Your task to perform on an android device: Add usb-c to the cart on bestbuy Image 0: 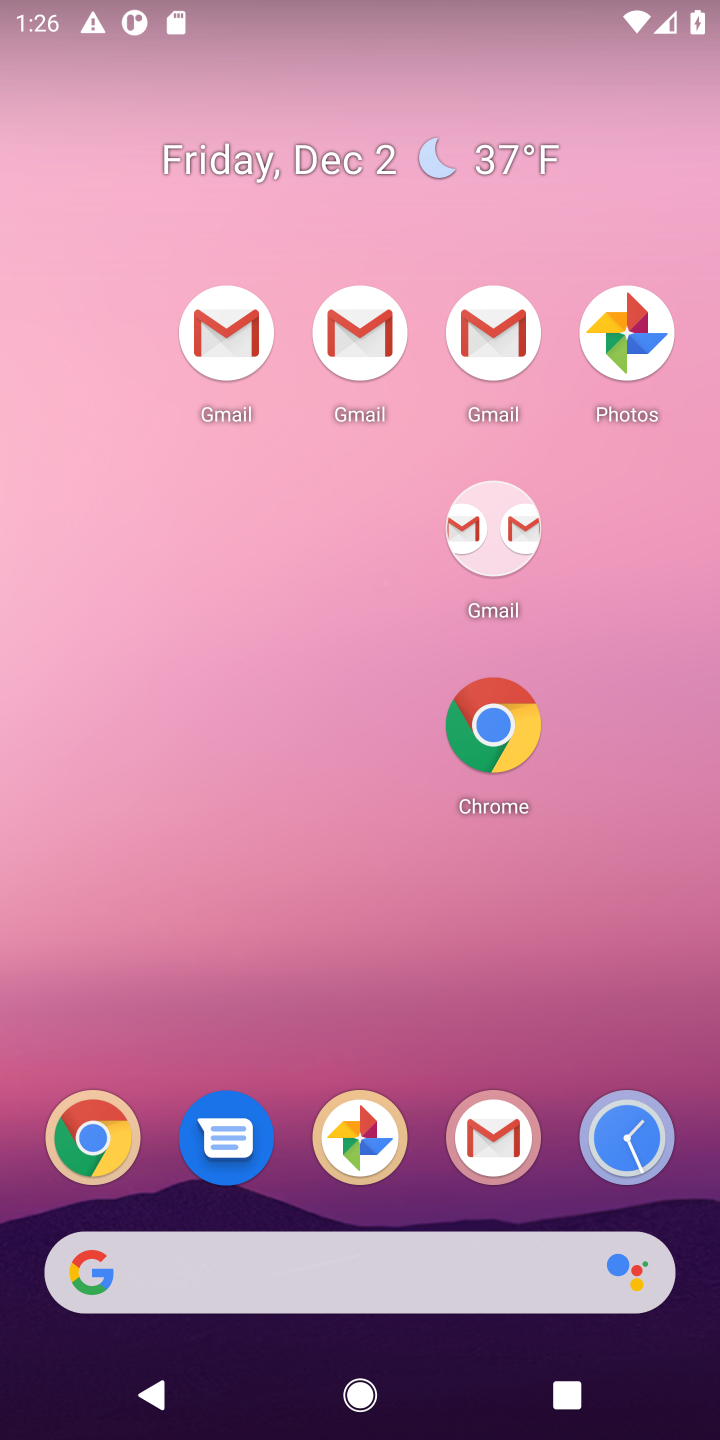
Step 0: drag from (440, 1226) to (343, 393)
Your task to perform on an android device: Add usb-c to the cart on bestbuy Image 1: 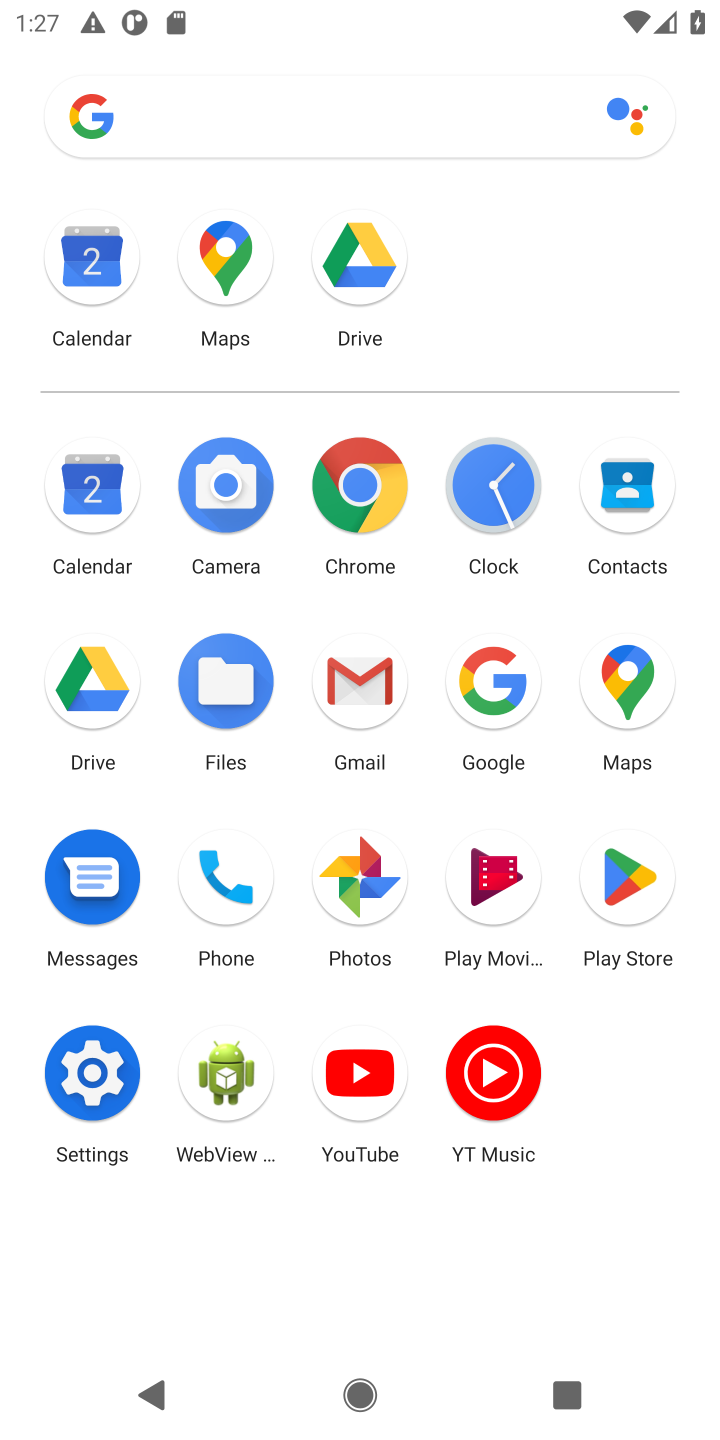
Step 1: click (547, 716)
Your task to perform on an android device: Add usb-c to the cart on bestbuy Image 2: 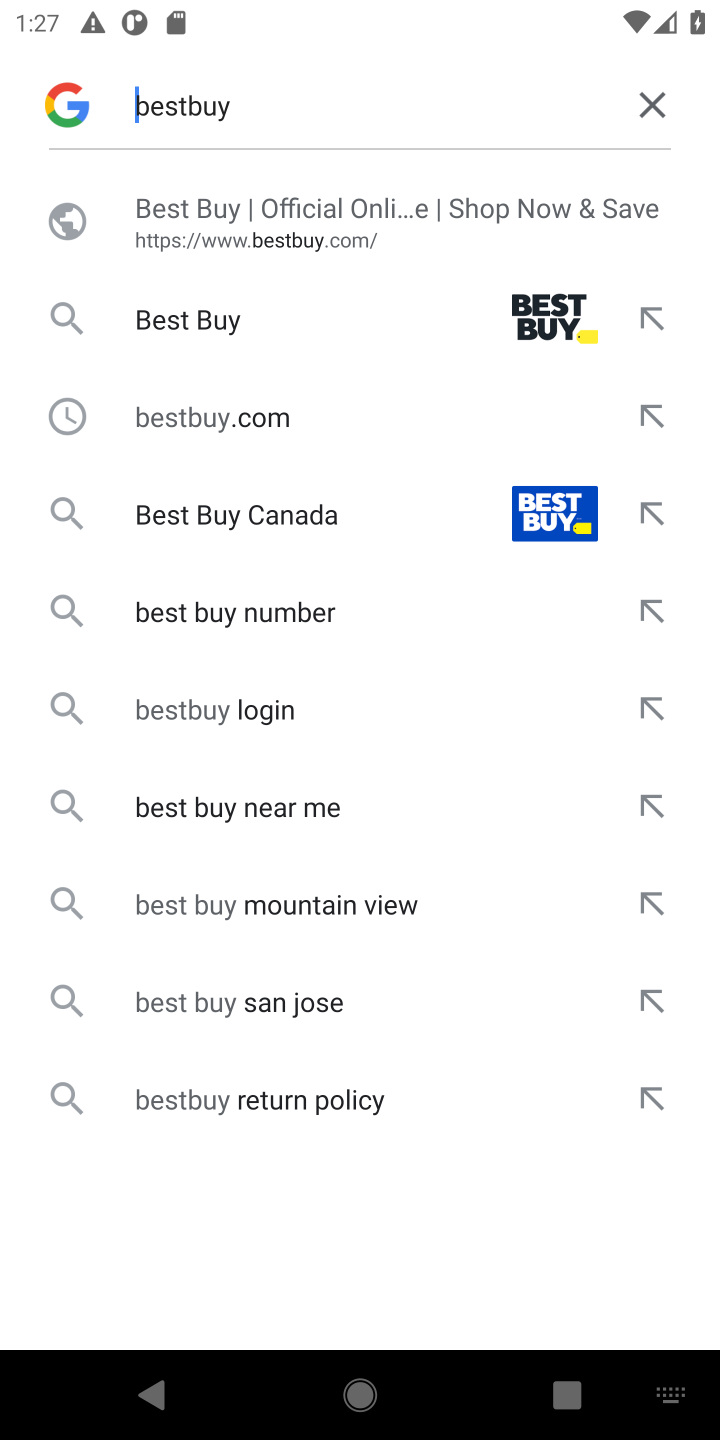
Step 2: click (412, 231)
Your task to perform on an android device: Add usb-c to the cart on bestbuy Image 3: 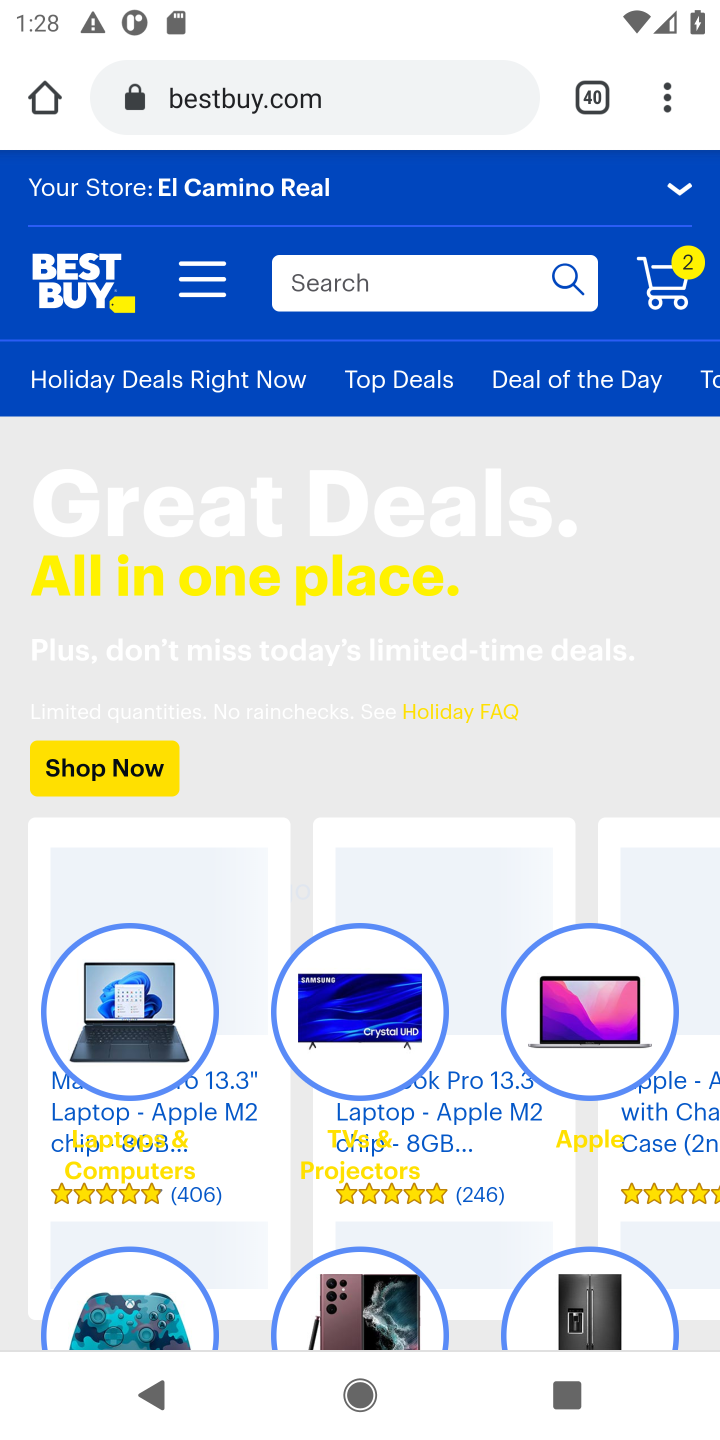
Step 3: click (467, 294)
Your task to perform on an android device: Add usb-c to the cart on bestbuy Image 4: 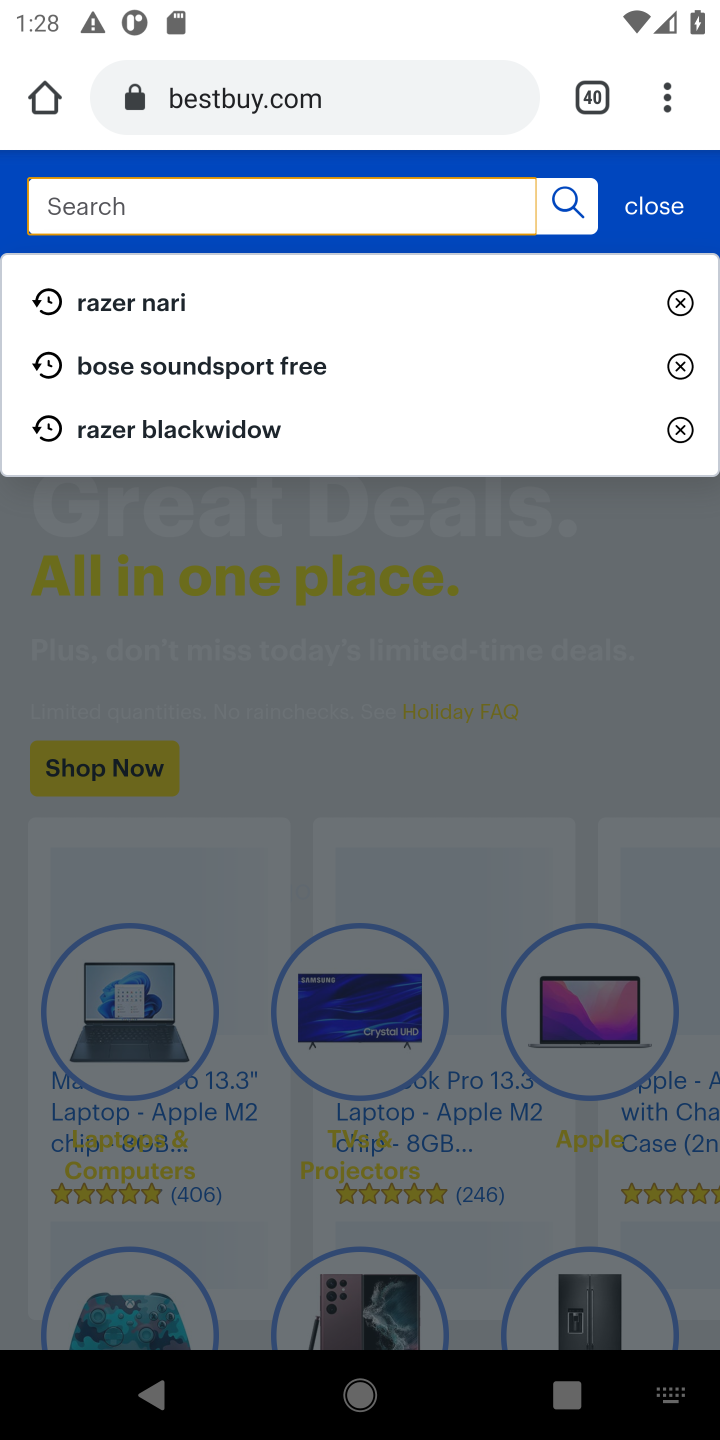
Step 4: type "usb-c"
Your task to perform on an android device: Add usb-c to the cart on bestbuy Image 5: 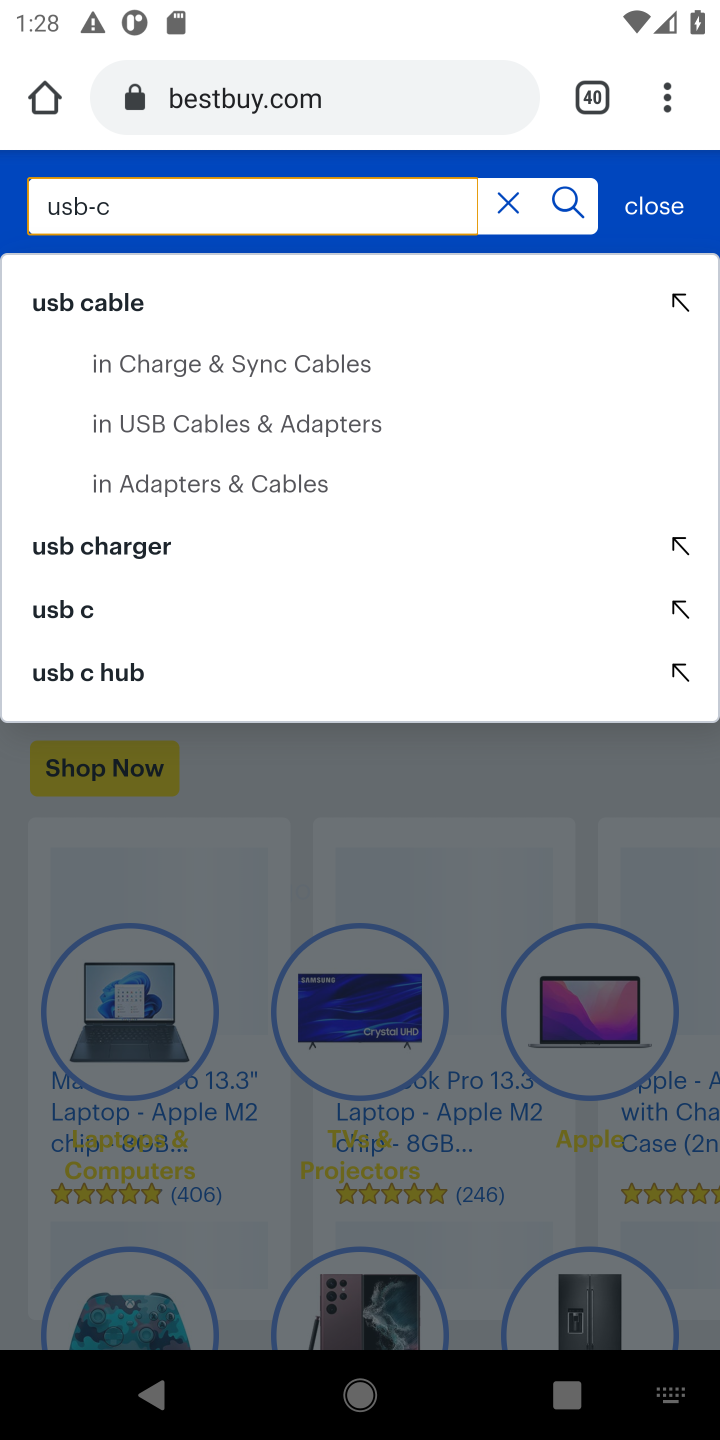
Step 5: click (155, 612)
Your task to perform on an android device: Add usb-c to the cart on bestbuy Image 6: 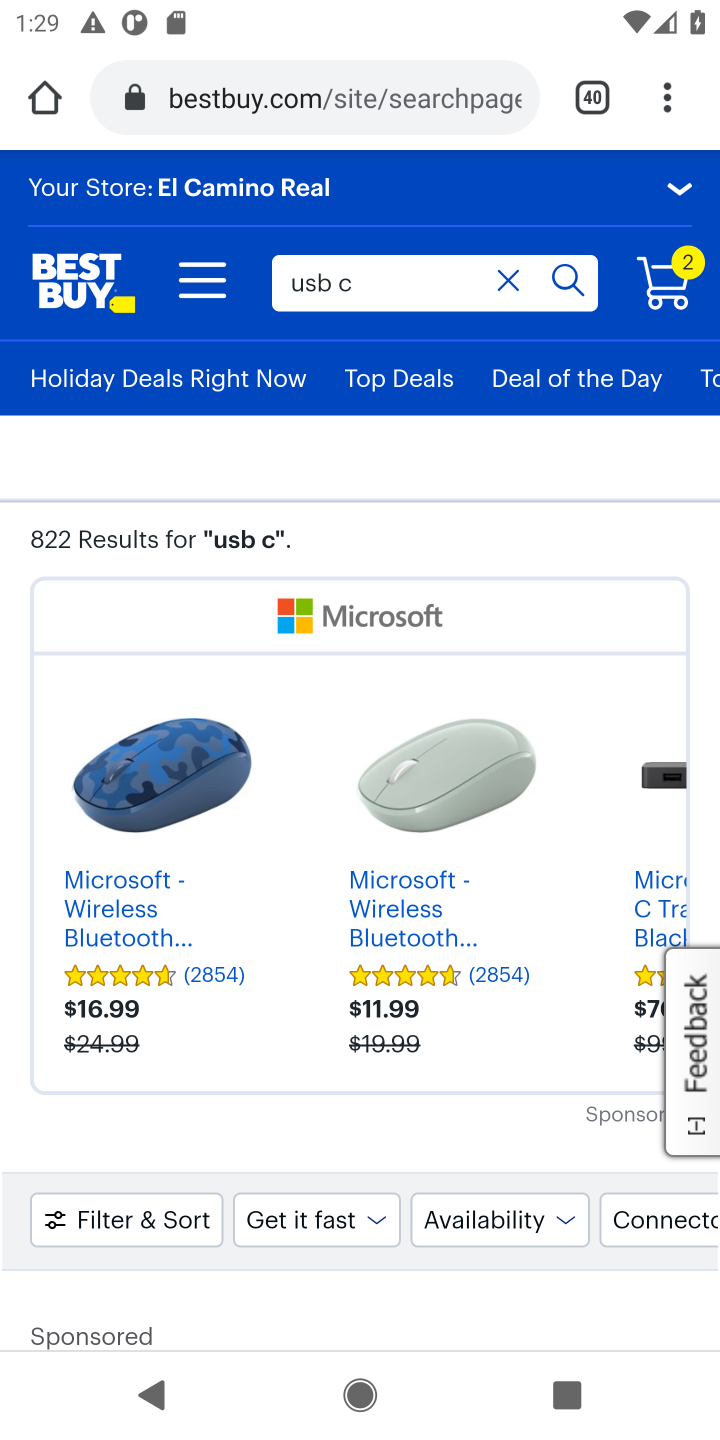
Step 6: drag from (390, 1098) to (394, 765)
Your task to perform on an android device: Add usb-c to the cart on bestbuy Image 7: 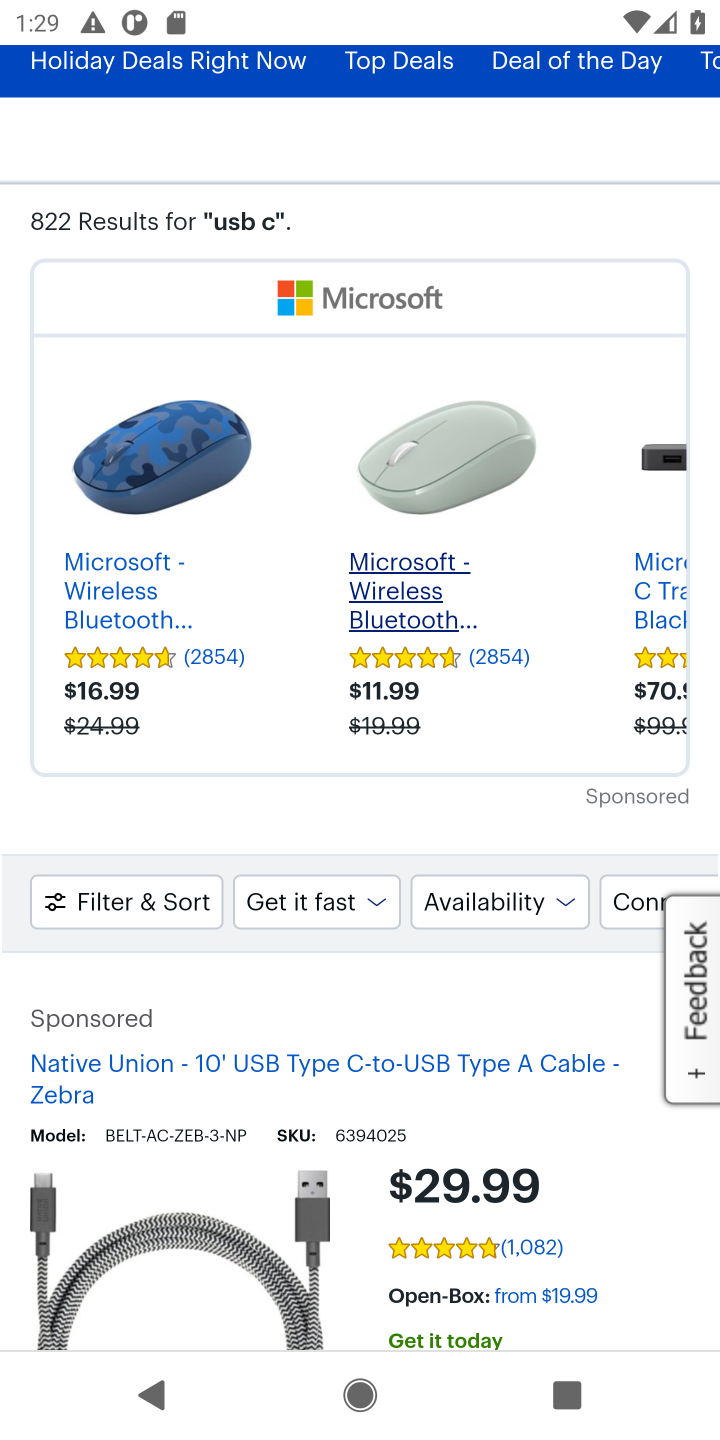
Step 7: drag from (400, 1112) to (405, 617)
Your task to perform on an android device: Add usb-c to the cart on bestbuy Image 8: 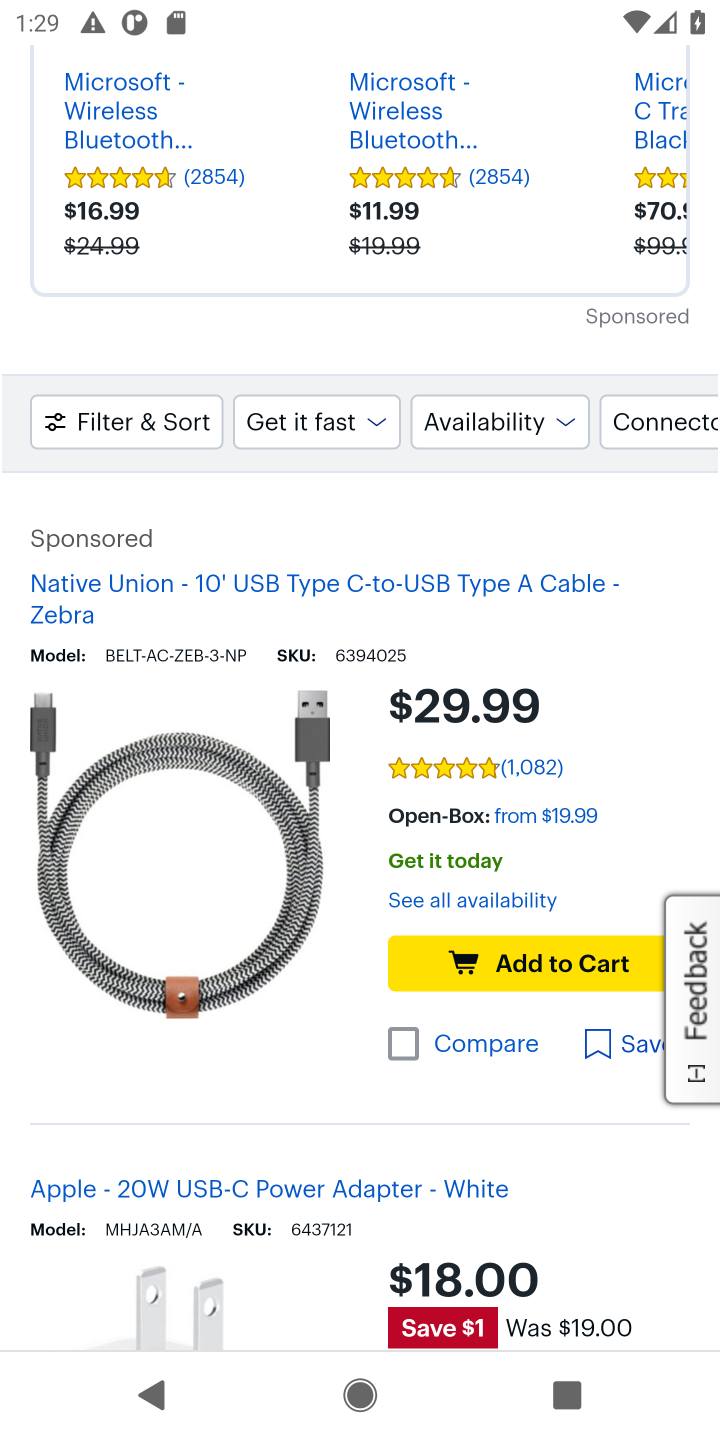
Step 8: click (579, 957)
Your task to perform on an android device: Add usb-c to the cart on bestbuy Image 9: 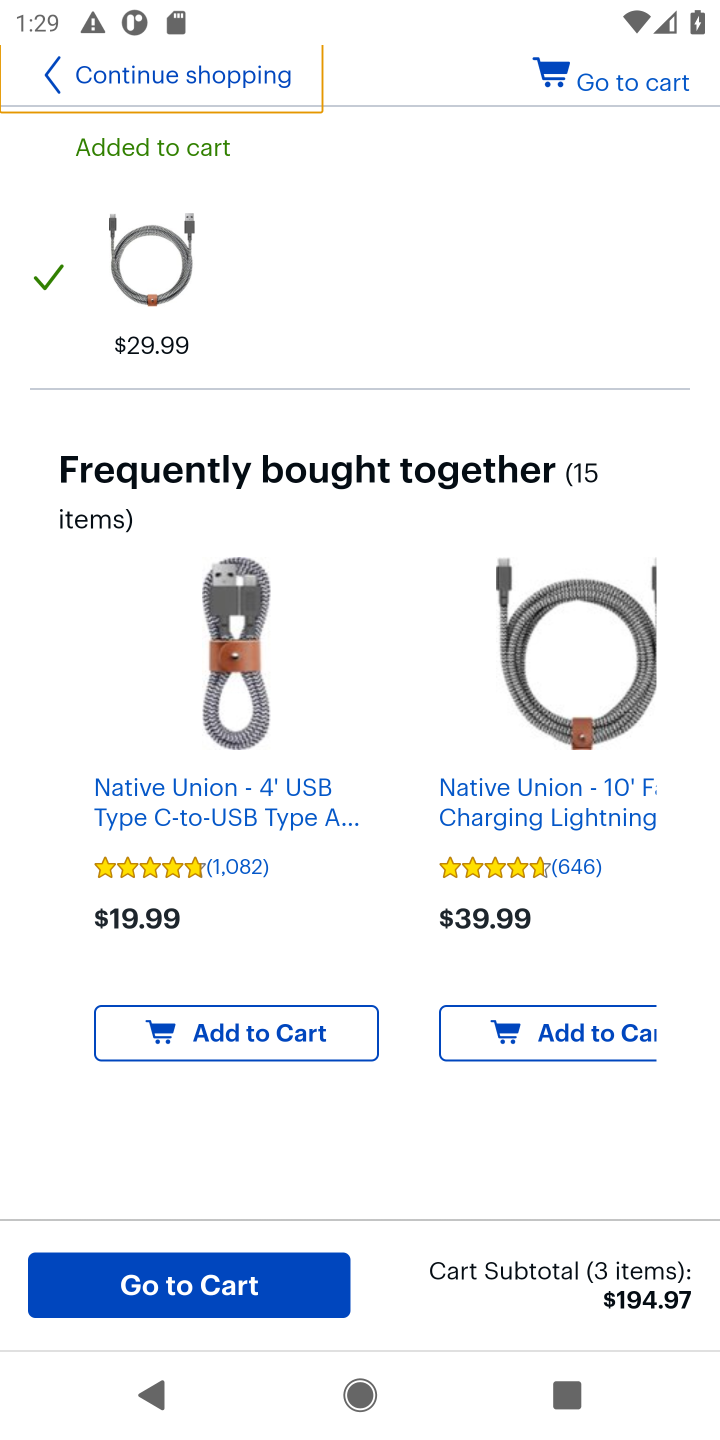
Step 9: task complete